Your task to perform on an android device: Go to accessibility settings Image 0: 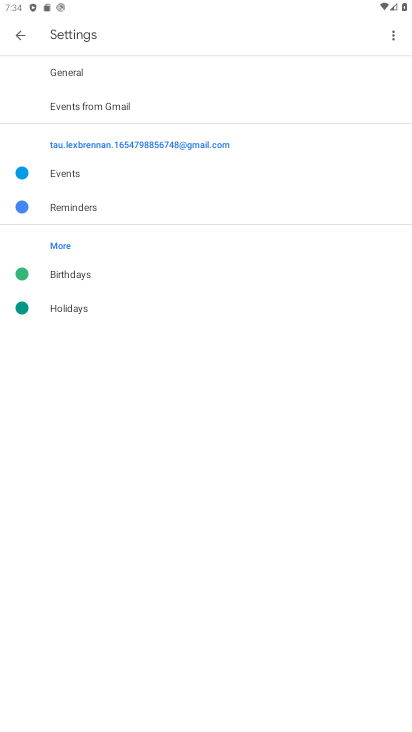
Step 0: press home button
Your task to perform on an android device: Go to accessibility settings Image 1: 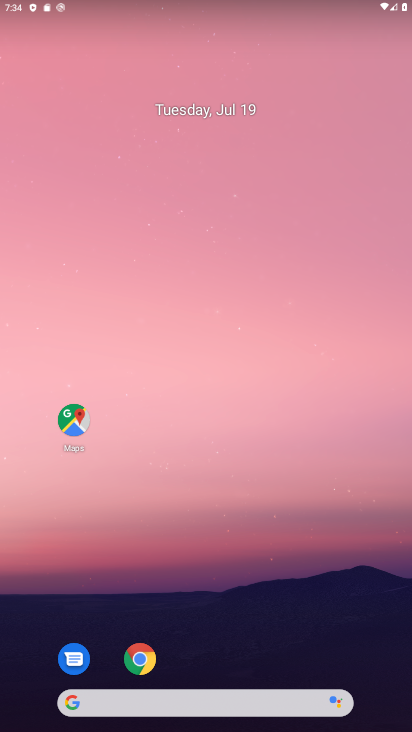
Step 1: drag from (228, 693) to (286, 329)
Your task to perform on an android device: Go to accessibility settings Image 2: 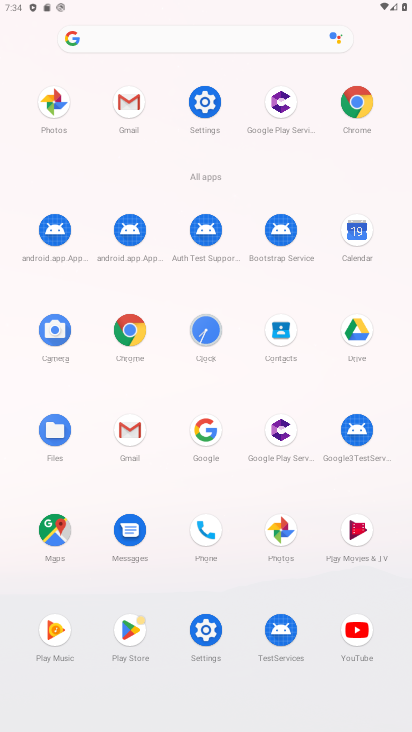
Step 2: click (201, 107)
Your task to perform on an android device: Go to accessibility settings Image 3: 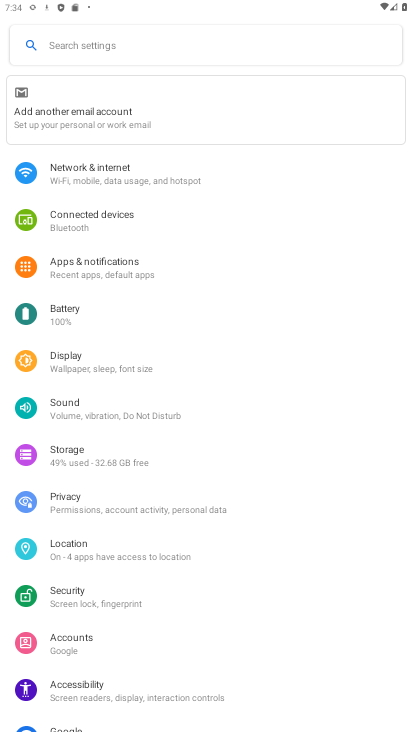
Step 3: click (99, 702)
Your task to perform on an android device: Go to accessibility settings Image 4: 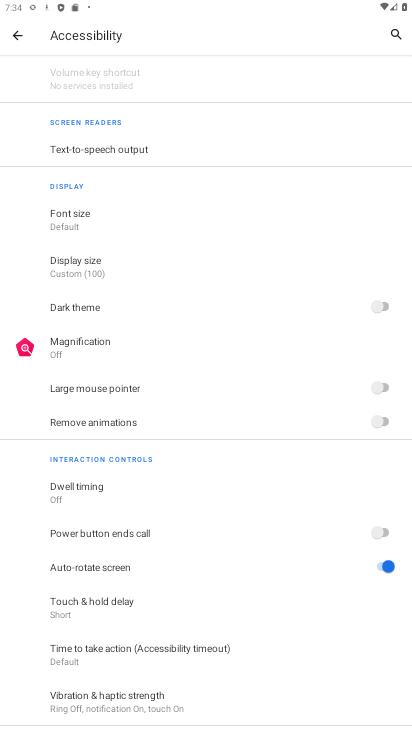
Step 4: click (89, 690)
Your task to perform on an android device: Go to accessibility settings Image 5: 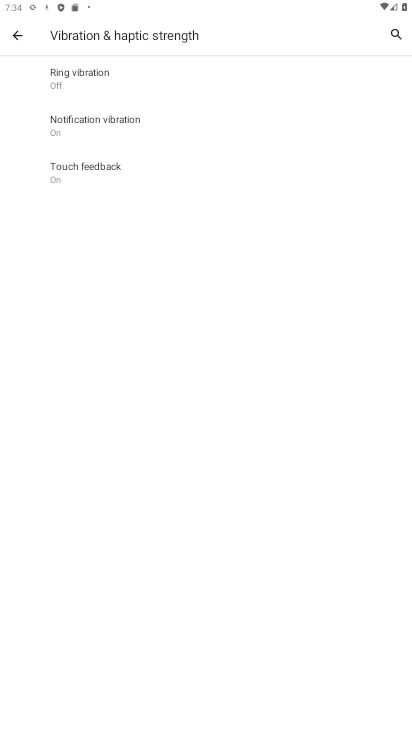
Step 5: click (25, 27)
Your task to perform on an android device: Go to accessibility settings Image 6: 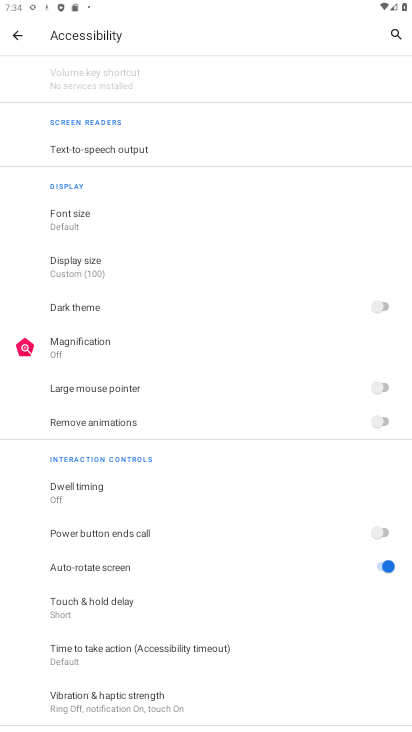
Step 6: task complete